Your task to perform on an android device: open wifi settings Image 0: 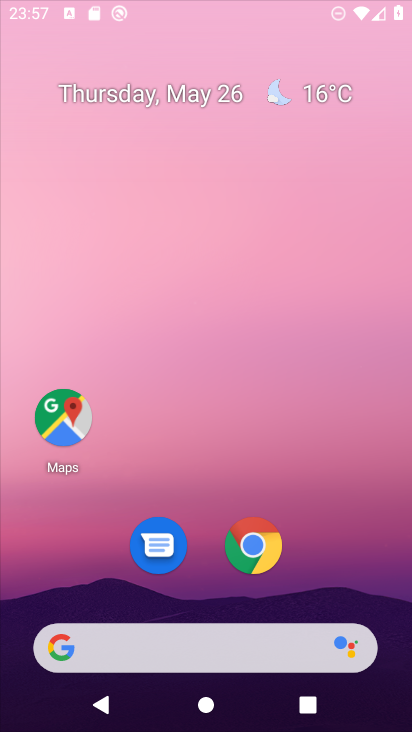
Step 0: press home button
Your task to perform on an android device: open wifi settings Image 1: 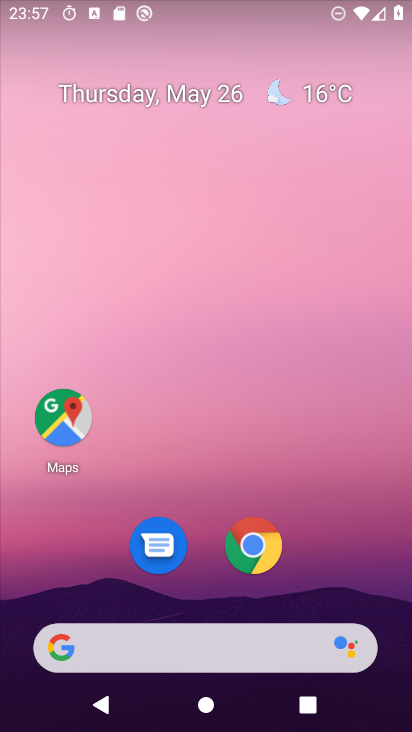
Step 1: drag from (318, 607) to (258, 25)
Your task to perform on an android device: open wifi settings Image 2: 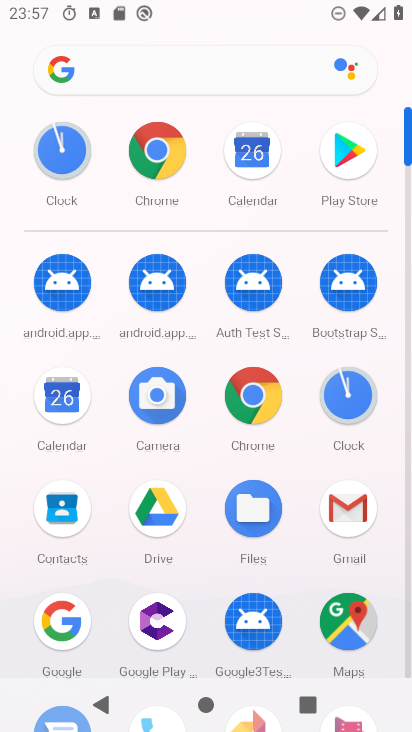
Step 2: drag from (382, 578) to (323, 8)
Your task to perform on an android device: open wifi settings Image 3: 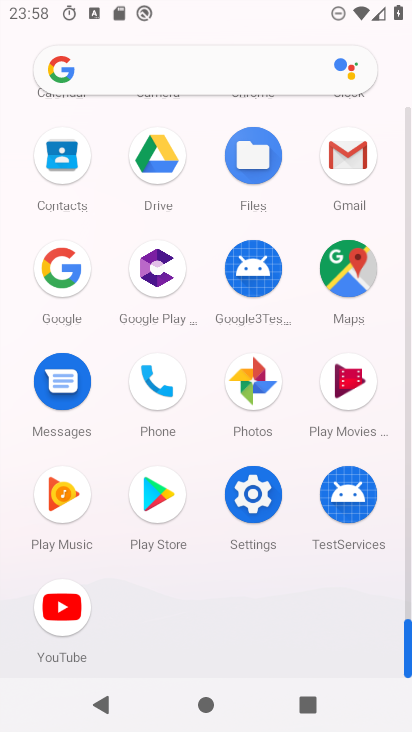
Step 3: click (246, 490)
Your task to perform on an android device: open wifi settings Image 4: 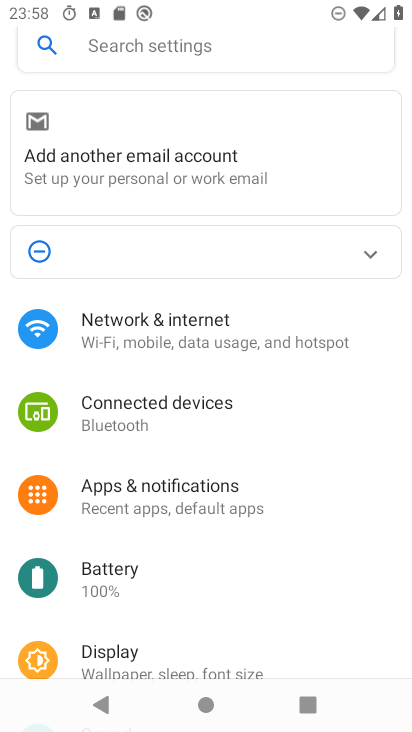
Step 4: click (158, 346)
Your task to perform on an android device: open wifi settings Image 5: 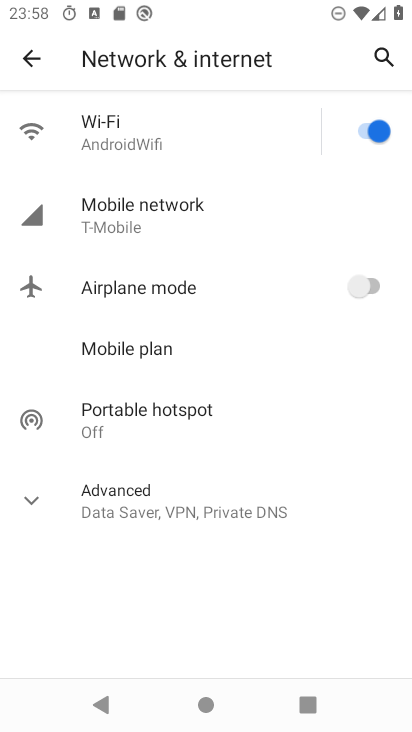
Step 5: click (113, 133)
Your task to perform on an android device: open wifi settings Image 6: 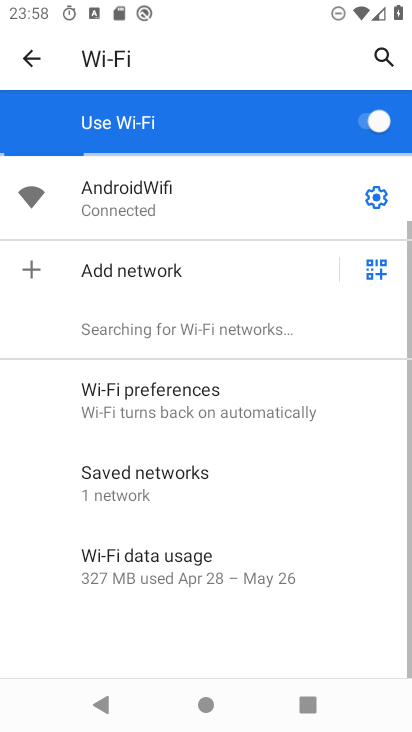
Step 6: task complete